Your task to perform on an android device: visit the assistant section in the google photos Image 0: 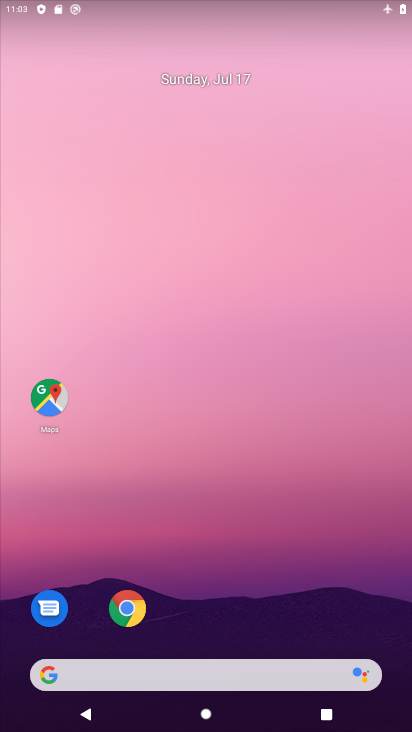
Step 0: drag from (274, 591) to (273, 0)
Your task to perform on an android device: visit the assistant section in the google photos Image 1: 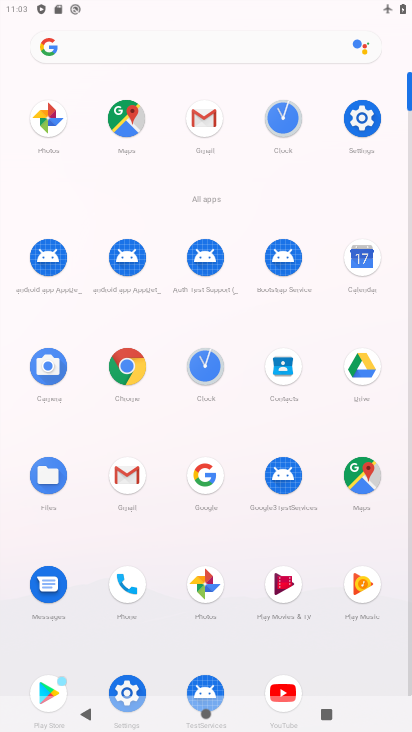
Step 1: click (204, 579)
Your task to perform on an android device: visit the assistant section in the google photos Image 2: 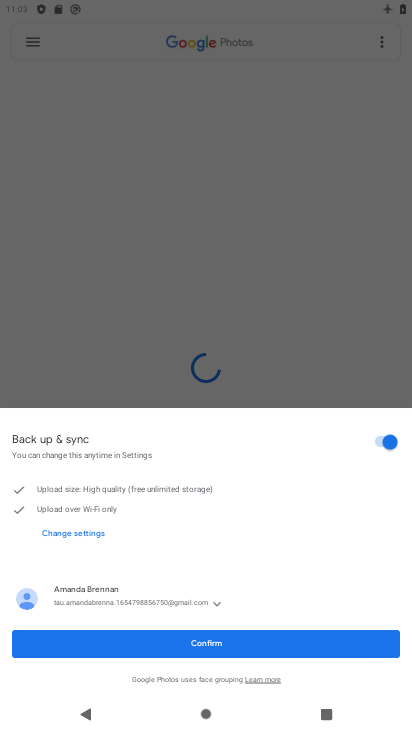
Step 2: click (225, 647)
Your task to perform on an android device: visit the assistant section in the google photos Image 3: 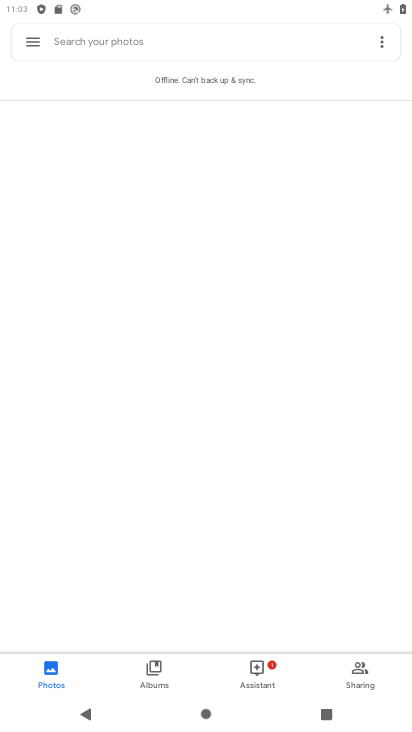
Step 3: click (270, 670)
Your task to perform on an android device: visit the assistant section in the google photos Image 4: 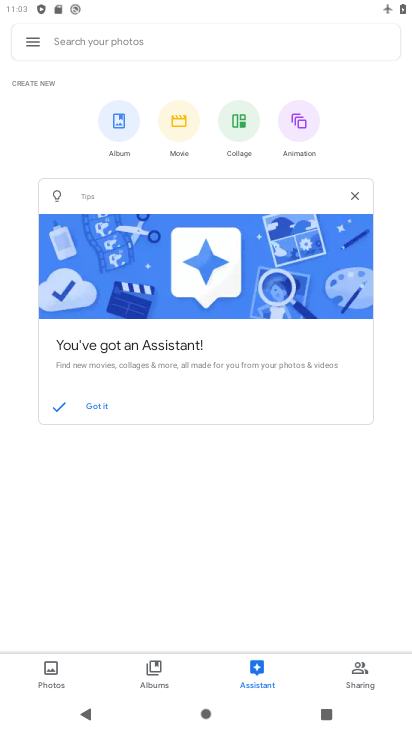
Step 4: task complete